Your task to perform on an android device: clear all cookies in the chrome app Image 0: 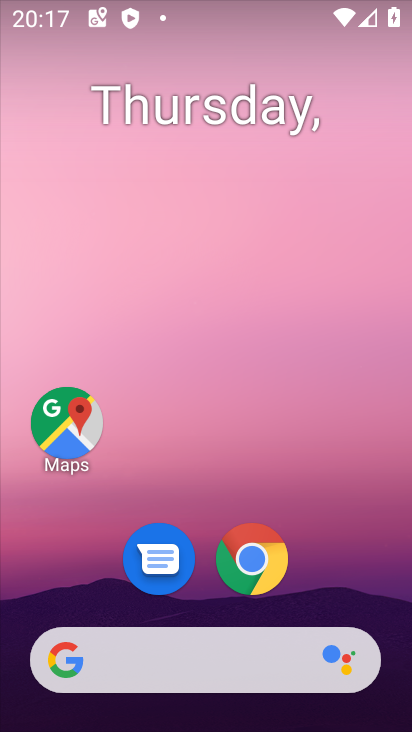
Step 0: click (235, 570)
Your task to perform on an android device: clear all cookies in the chrome app Image 1: 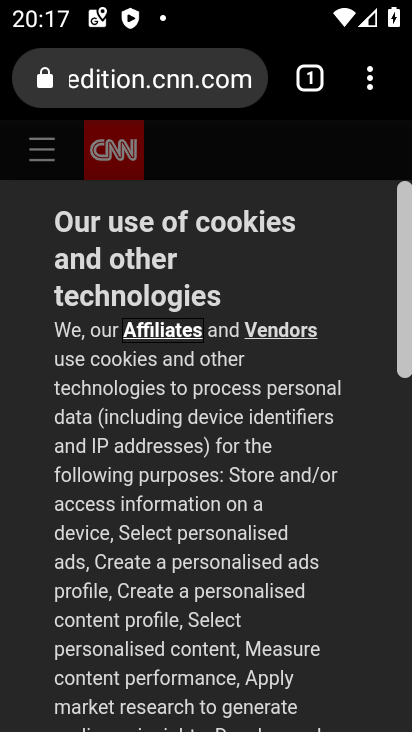
Step 1: drag from (374, 75) to (97, 437)
Your task to perform on an android device: clear all cookies in the chrome app Image 2: 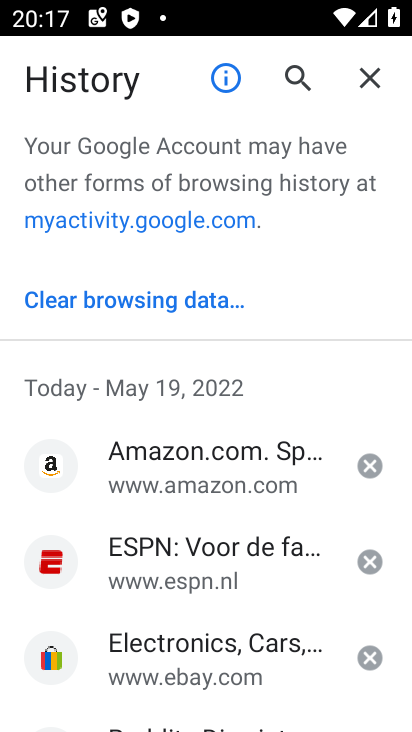
Step 2: click (106, 311)
Your task to perform on an android device: clear all cookies in the chrome app Image 3: 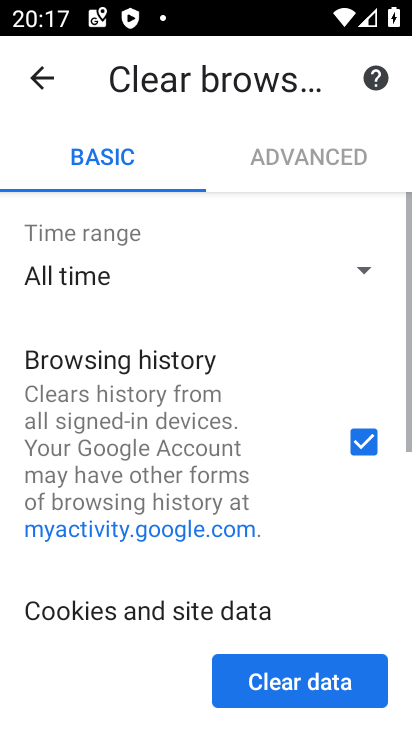
Step 3: click (354, 453)
Your task to perform on an android device: clear all cookies in the chrome app Image 4: 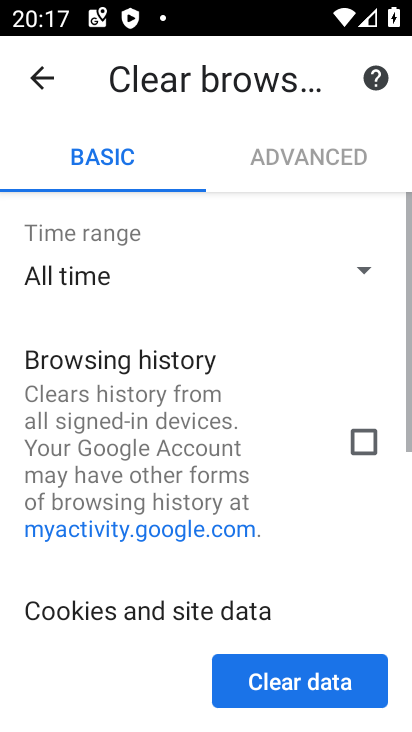
Step 4: drag from (296, 477) to (321, 71)
Your task to perform on an android device: clear all cookies in the chrome app Image 5: 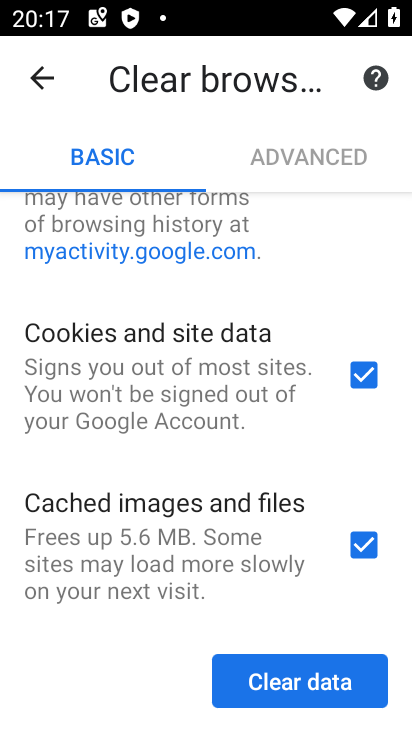
Step 5: click (369, 550)
Your task to perform on an android device: clear all cookies in the chrome app Image 6: 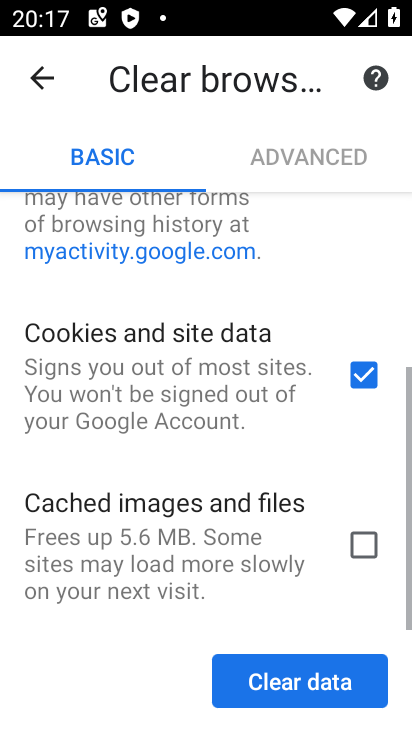
Step 6: click (328, 663)
Your task to perform on an android device: clear all cookies in the chrome app Image 7: 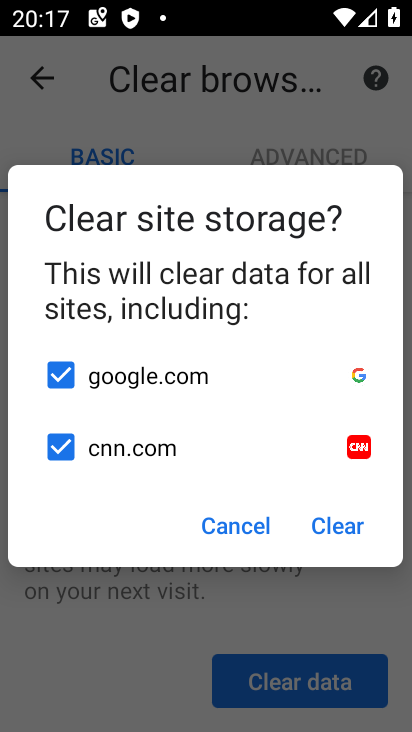
Step 7: click (344, 532)
Your task to perform on an android device: clear all cookies in the chrome app Image 8: 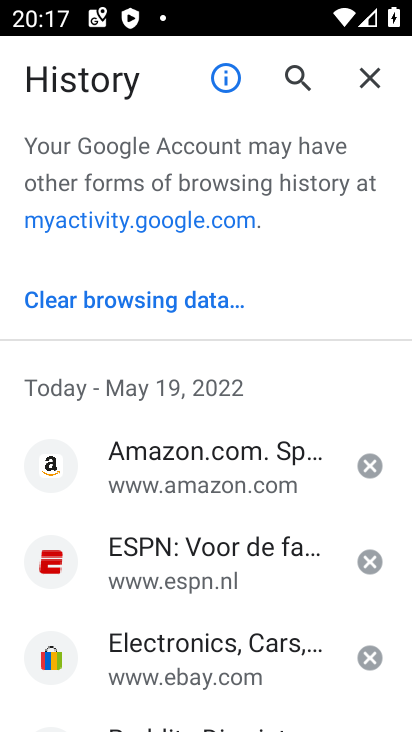
Step 8: task complete